Your task to perform on an android device: toggle pop-ups in chrome Image 0: 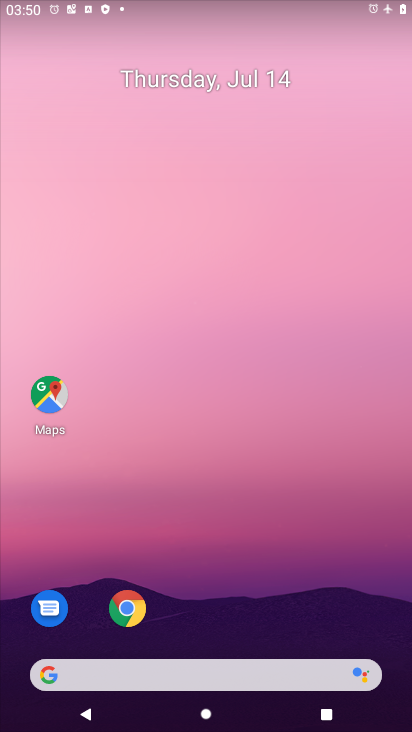
Step 0: click (127, 610)
Your task to perform on an android device: toggle pop-ups in chrome Image 1: 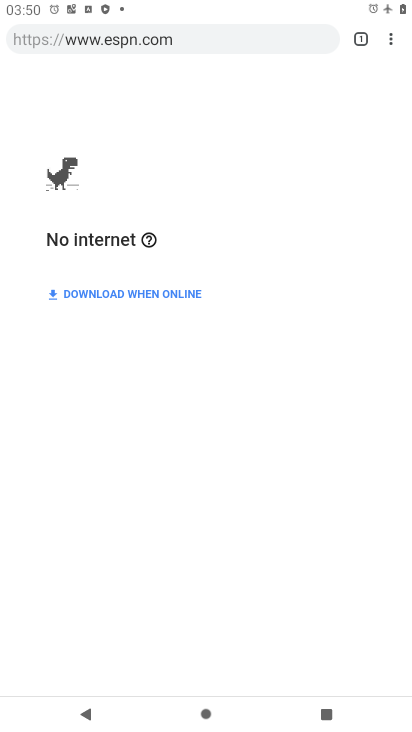
Step 1: click (391, 40)
Your task to perform on an android device: toggle pop-ups in chrome Image 2: 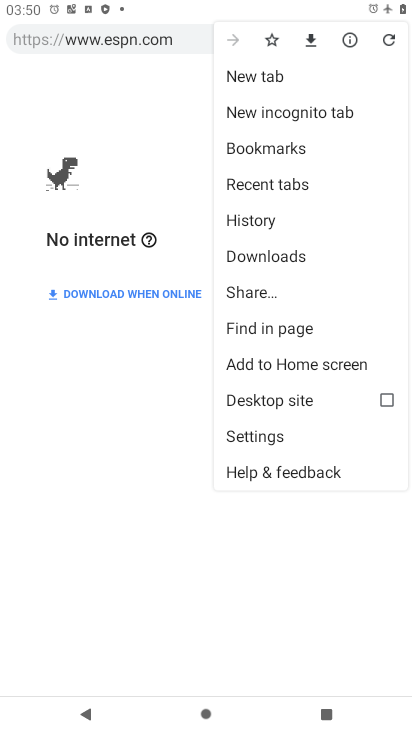
Step 2: click (270, 435)
Your task to perform on an android device: toggle pop-ups in chrome Image 3: 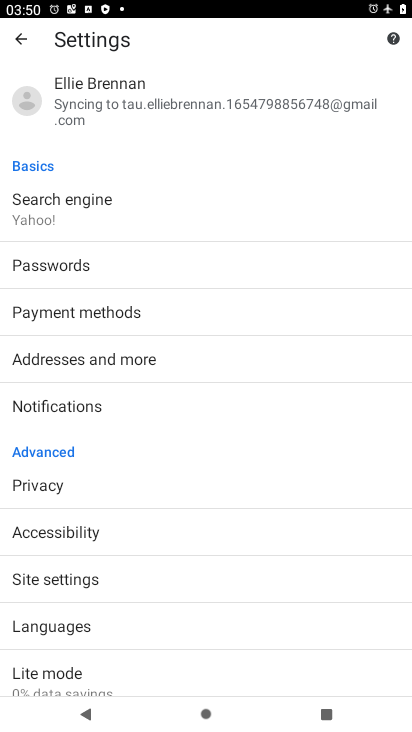
Step 3: click (58, 576)
Your task to perform on an android device: toggle pop-ups in chrome Image 4: 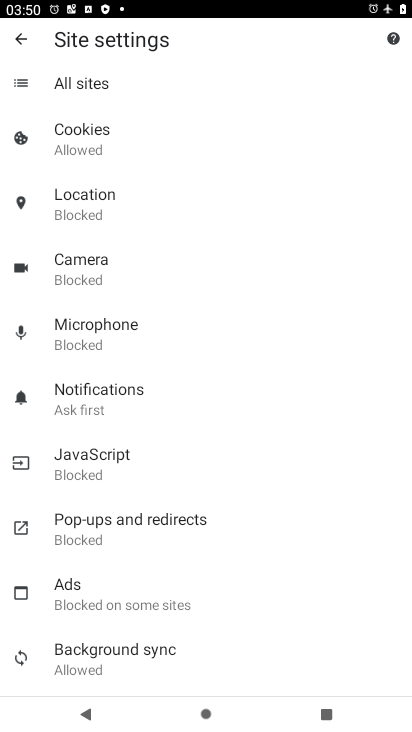
Step 4: click (83, 520)
Your task to perform on an android device: toggle pop-ups in chrome Image 5: 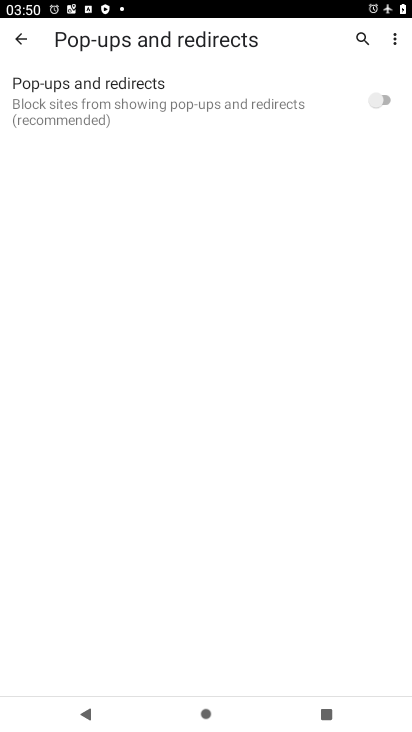
Step 5: click (386, 100)
Your task to perform on an android device: toggle pop-ups in chrome Image 6: 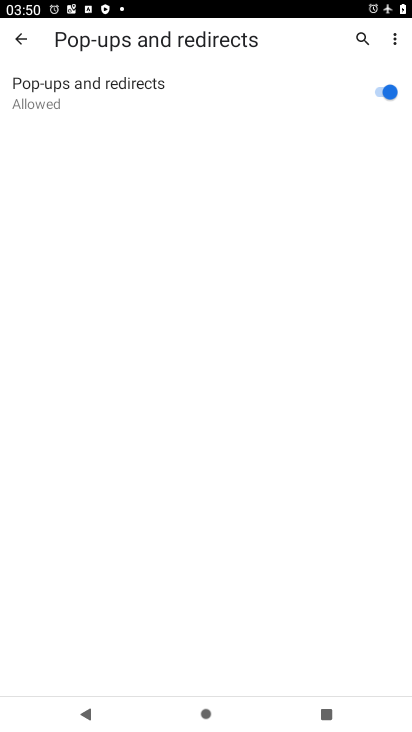
Step 6: task complete